Your task to perform on an android device: open chrome and create a bookmark for the current page Image 0: 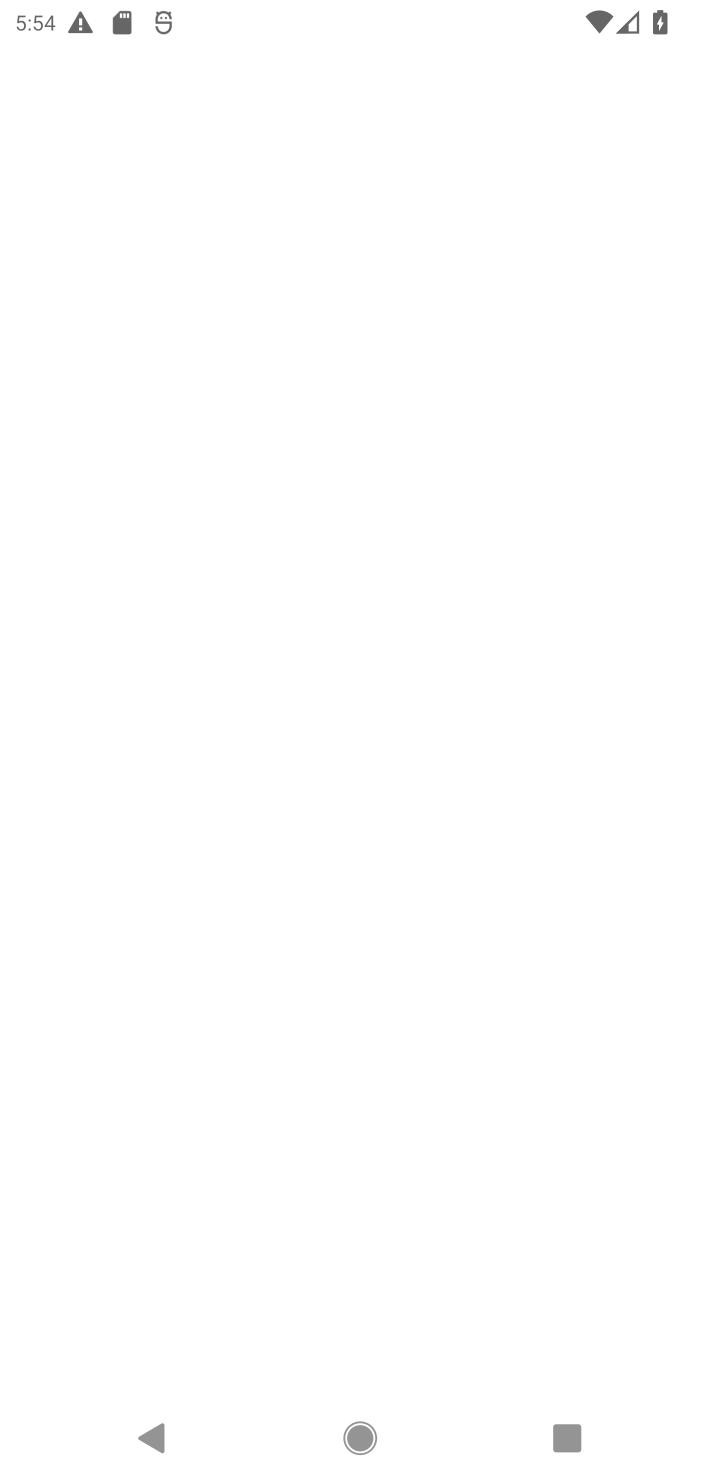
Step 0: press home button
Your task to perform on an android device: open chrome and create a bookmark for the current page Image 1: 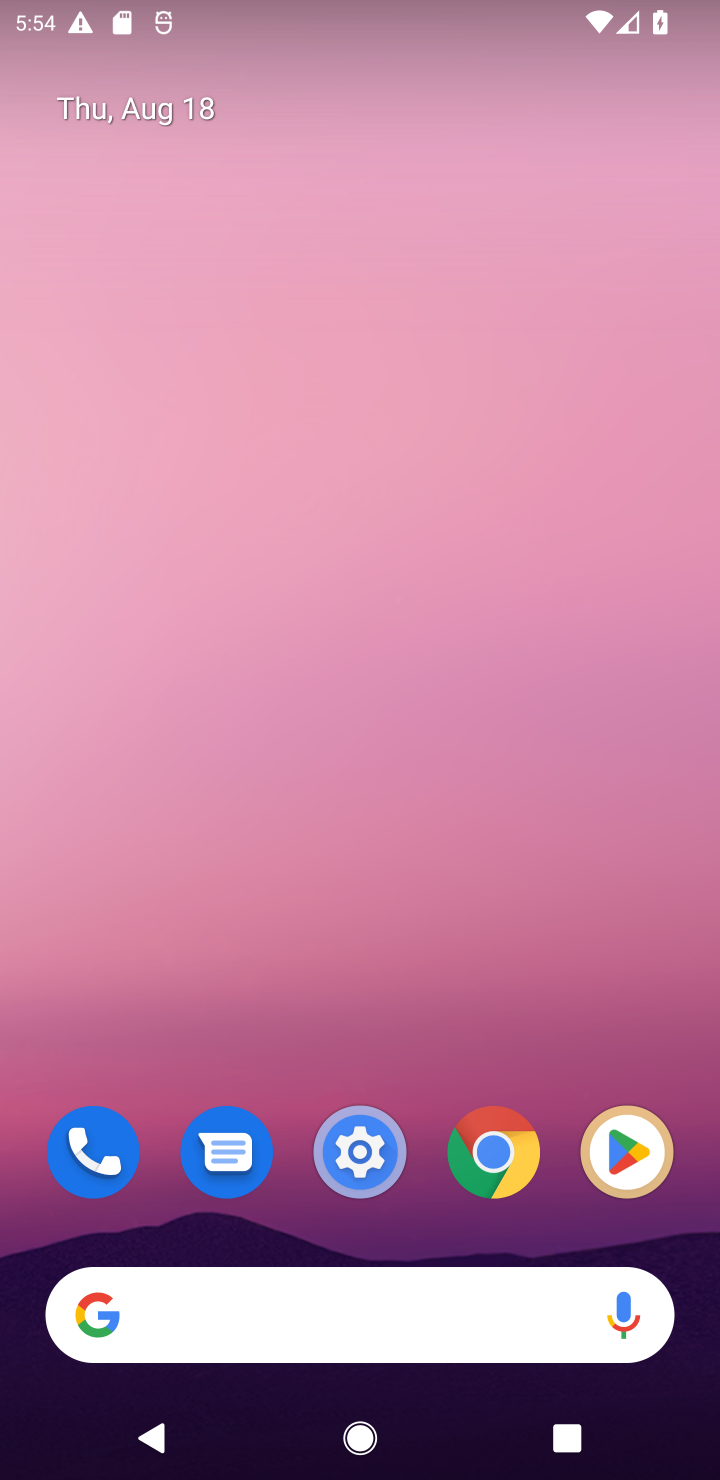
Step 1: click (510, 1189)
Your task to perform on an android device: open chrome and create a bookmark for the current page Image 2: 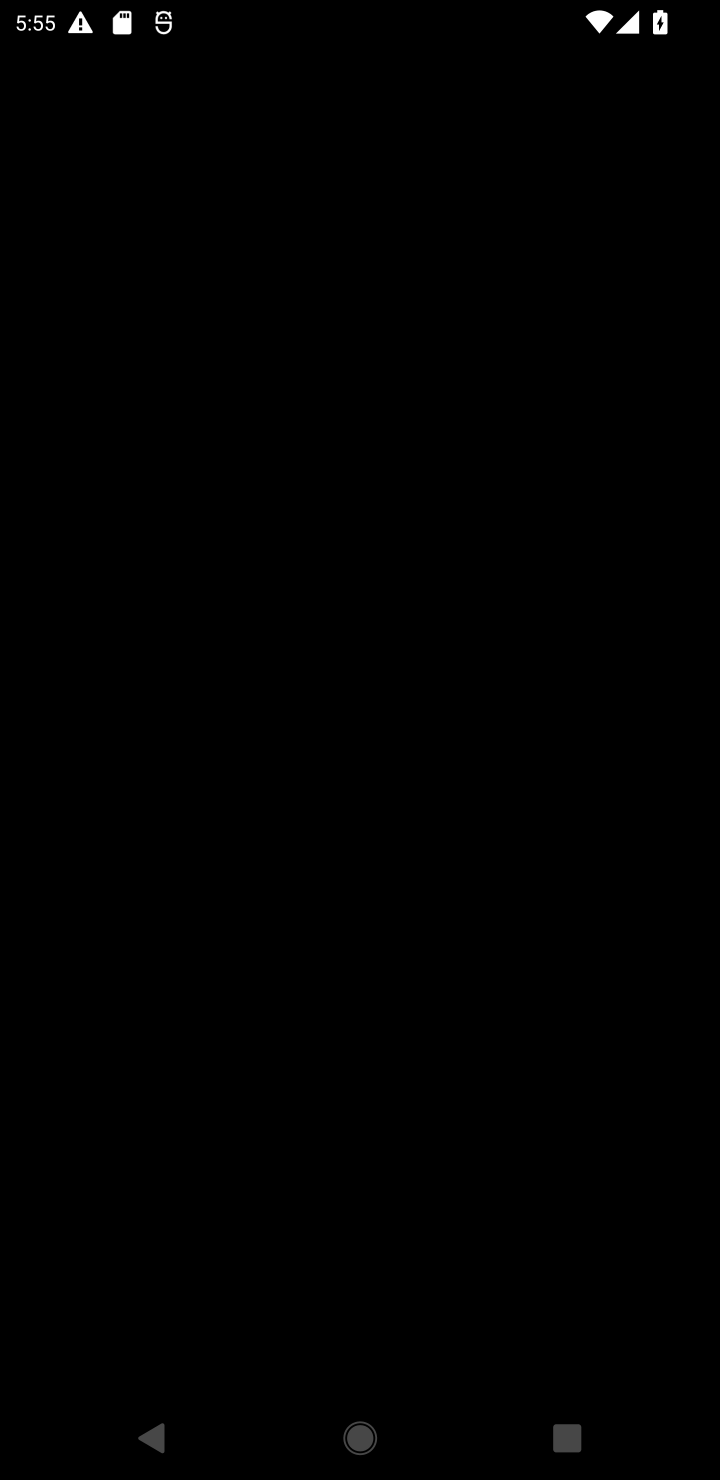
Step 2: press home button
Your task to perform on an android device: open chrome and create a bookmark for the current page Image 3: 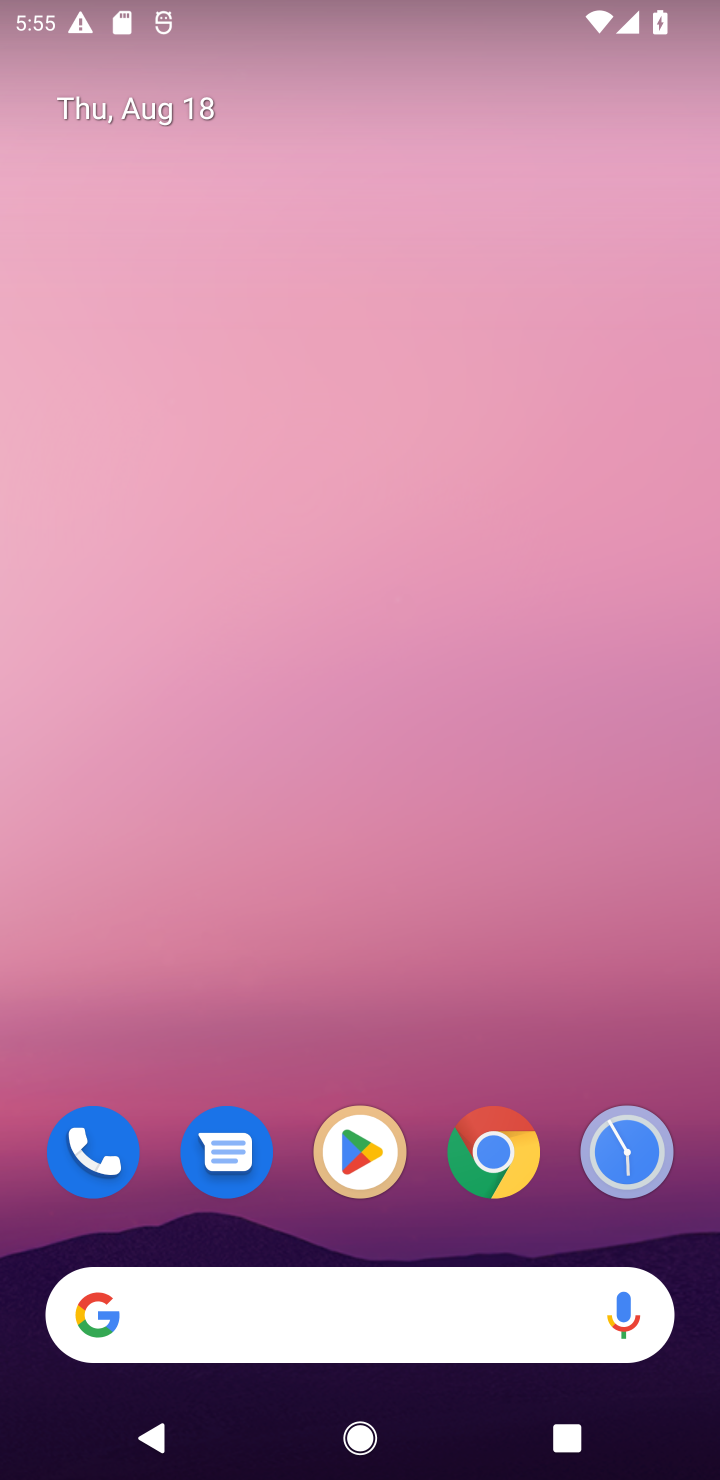
Step 3: click (476, 1161)
Your task to perform on an android device: open chrome and create a bookmark for the current page Image 4: 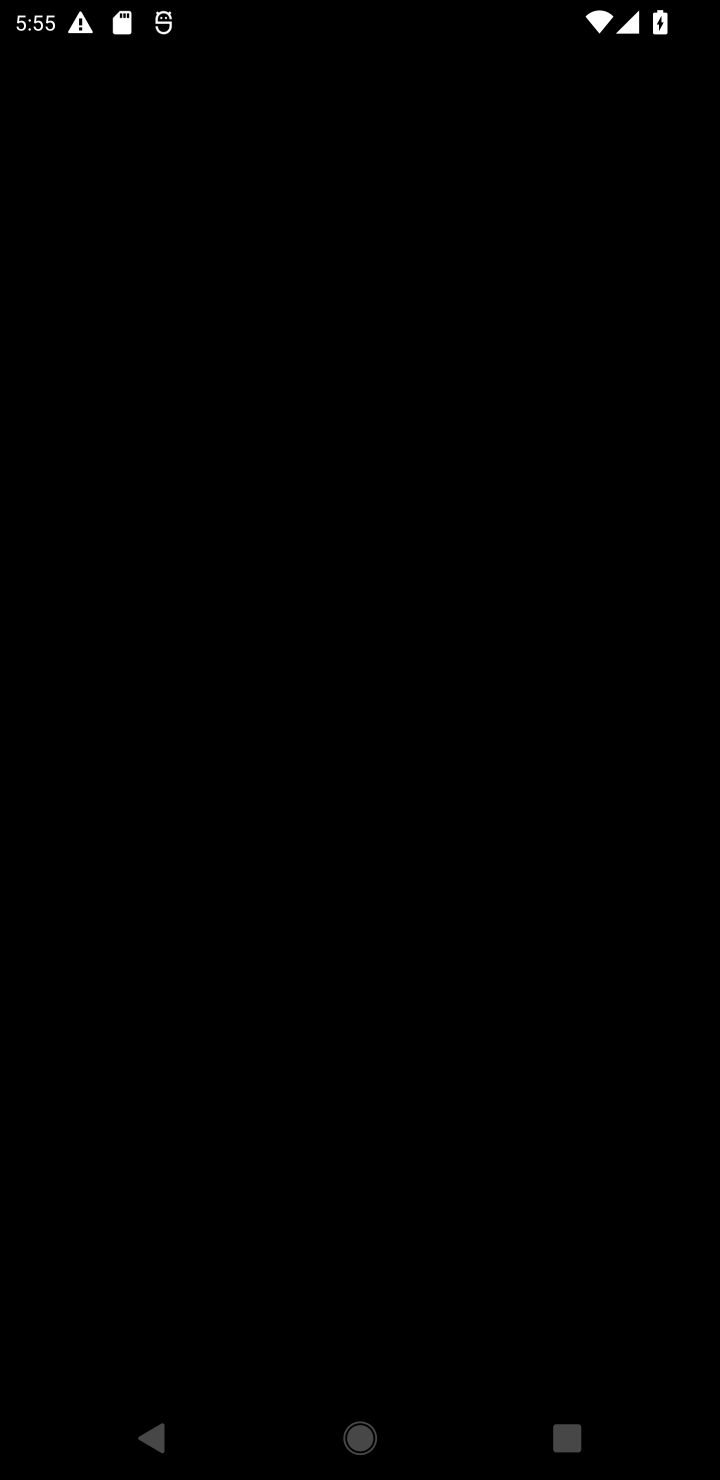
Step 4: task complete